Your task to perform on an android device: turn off notifications settings in the gmail app Image 0: 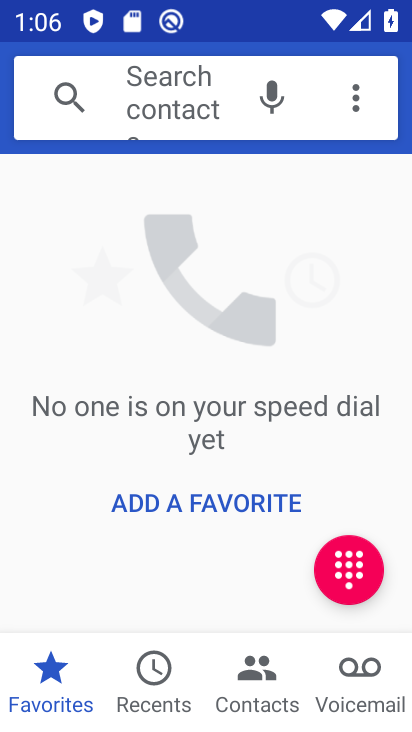
Step 0: press home button
Your task to perform on an android device: turn off notifications settings in the gmail app Image 1: 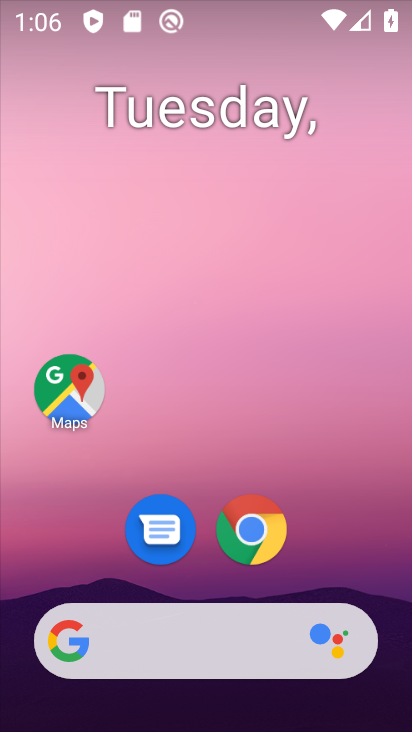
Step 1: drag from (372, 548) to (339, 112)
Your task to perform on an android device: turn off notifications settings in the gmail app Image 2: 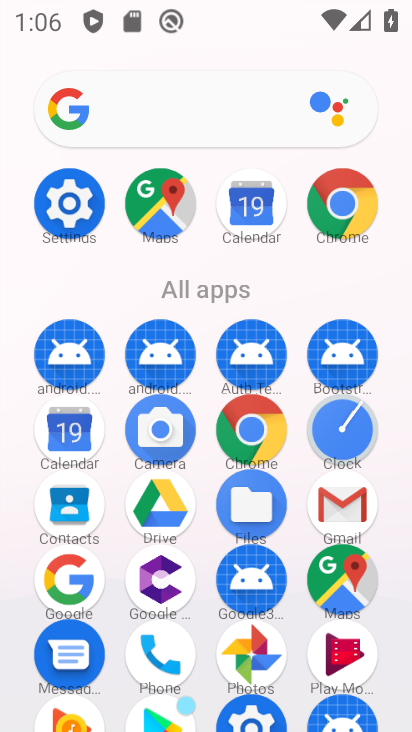
Step 2: click (353, 505)
Your task to perform on an android device: turn off notifications settings in the gmail app Image 3: 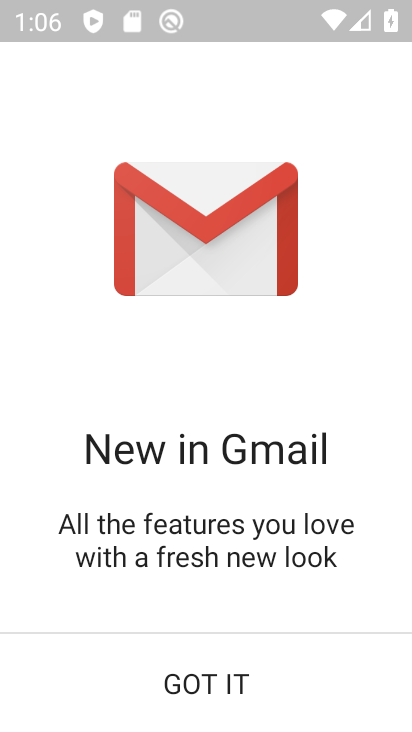
Step 3: click (232, 674)
Your task to perform on an android device: turn off notifications settings in the gmail app Image 4: 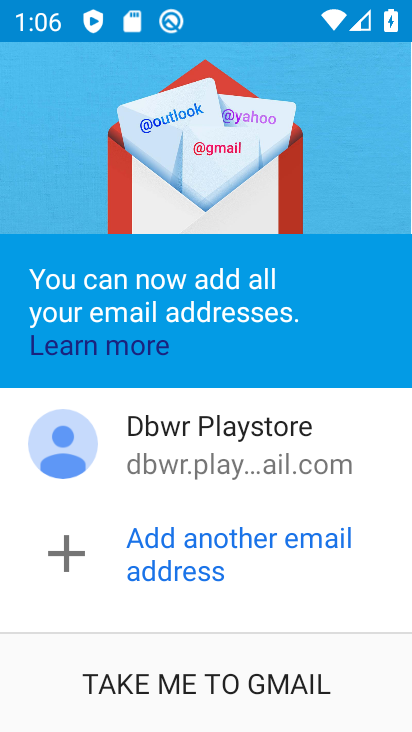
Step 4: click (232, 674)
Your task to perform on an android device: turn off notifications settings in the gmail app Image 5: 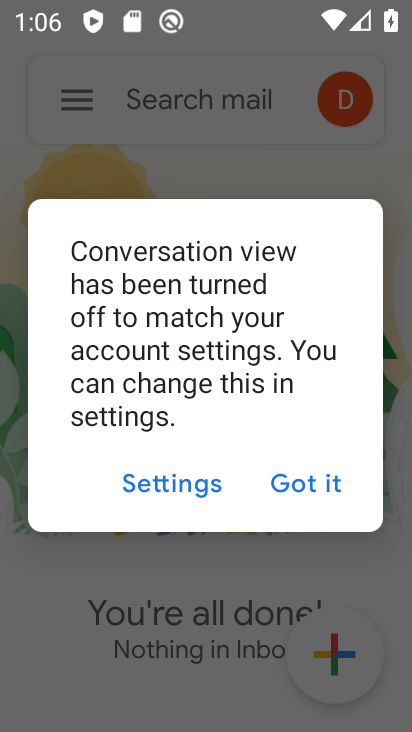
Step 5: click (312, 494)
Your task to perform on an android device: turn off notifications settings in the gmail app Image 6: 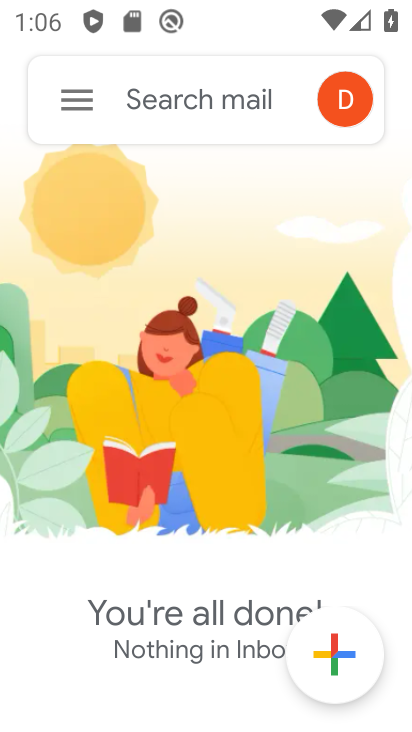
Step 6: click (73, 95)
Your task to perform on an android device: turn off notifications settings in the gmail app Image 7: 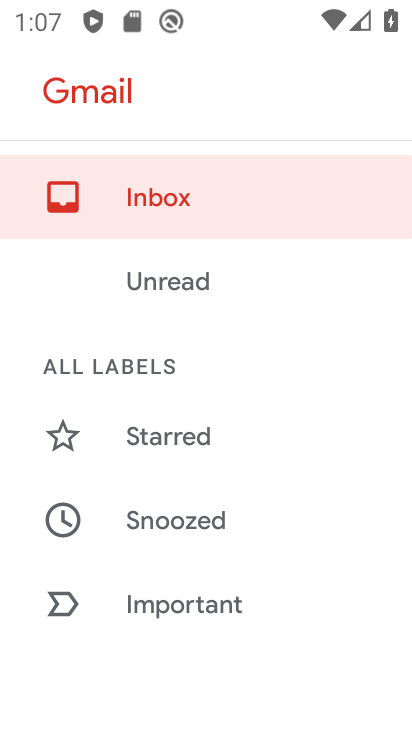
Step 7: drag from (316, 570) to (260, 286)
Your task to perform on an android device: turn off notifications settings in the gmail app Image 8: 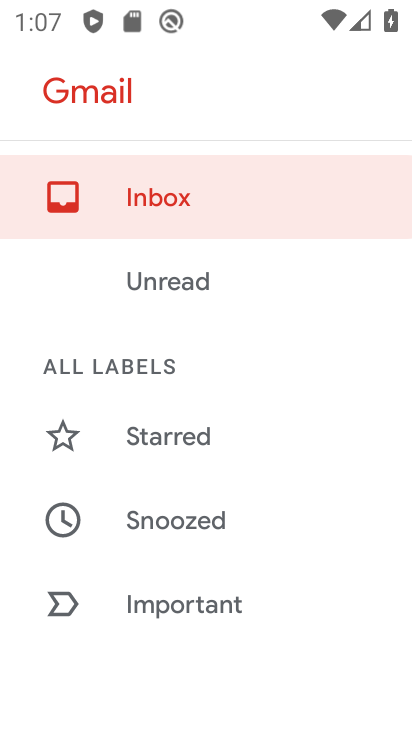
Step 8: drag from (381, 603) to (365, 255)
Your task to perform on an android device: turn off notifications settings in the gmail app Image 9: 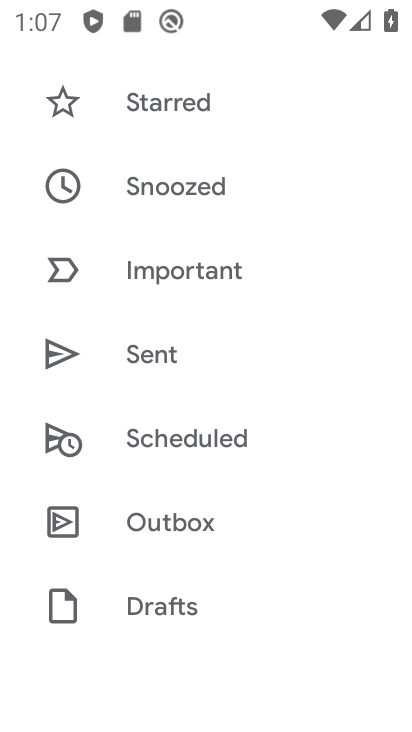
Step 9: drag from (365, 570) to (346, 145)
Your task to perform on an android device: turn off notifications settings in the gmail app Image 10: 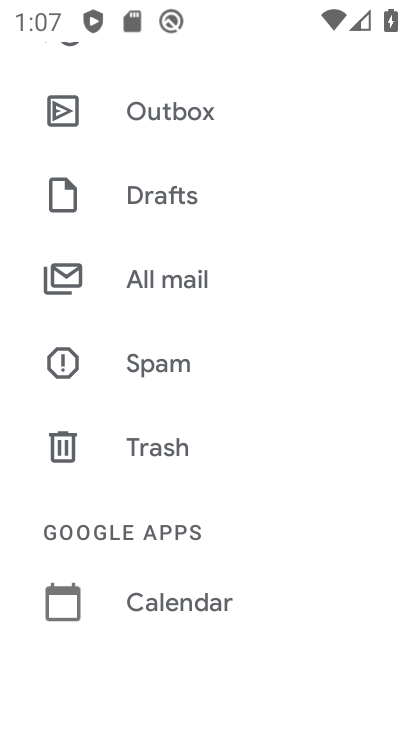
Step 10: drag from (358, 542) to (349, 163)
Your task to perform on an android device: turn off notifications settings in the gmail app Image 11: 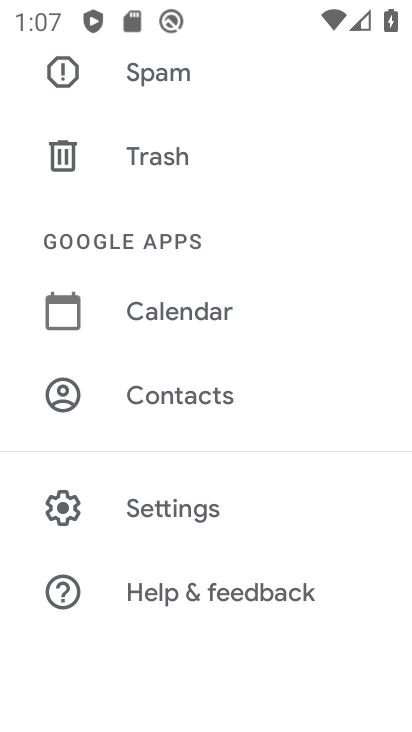
Step 11: click (292, 506)
Your task to perform on an android device: turn off notifications settings in the gmail app Image 12: 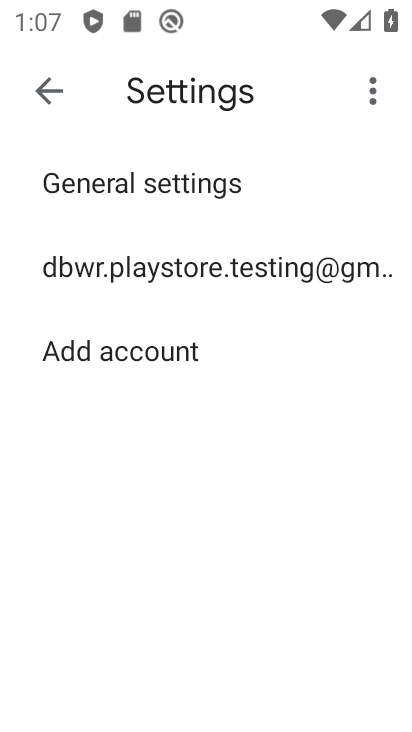
Step 12: click (305, 271)
Your task to perform on an android device: turn off notifications settings in the gmail app Image 13: 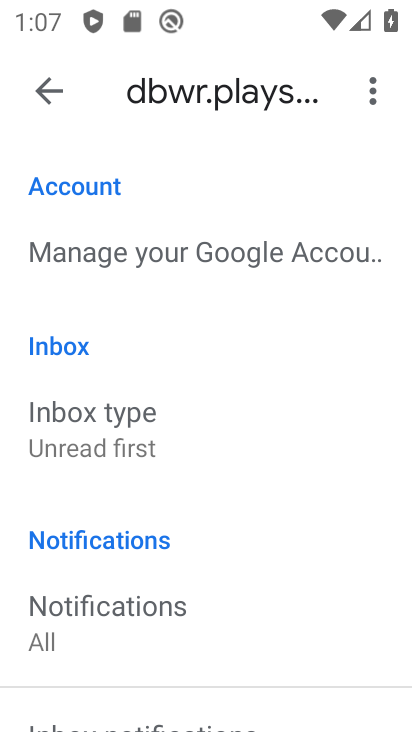
Step 13: drag from (325, 574) to (286, 292)
Your task to perform on an android device: turn off notifications settings in the gmail app Image 14: 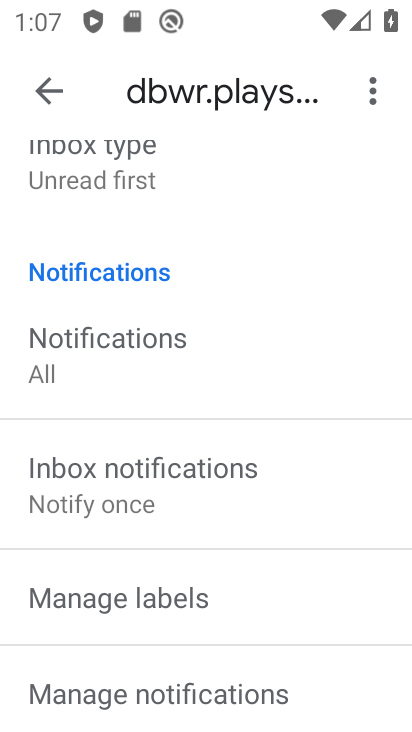
Step 14: drag from (333, 565) to (305, 230)
Your task to perform on an android device: turn off notifications settings in the gmail app Image 15: 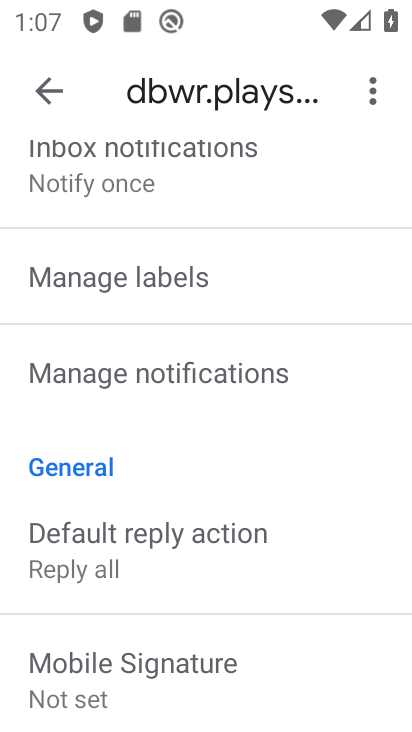
Step 15: click (320, 364)
Your task to perform on an android device: turn off notifications settings in the gmail app Image 16: 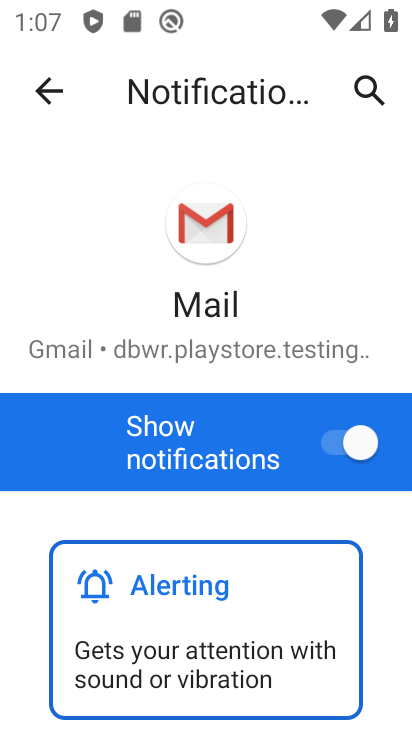
Step 16: drag from (383, 612) to (354, 137)
Your task to perform on an android device: turn off notifications settings in the gmail app Image 17: 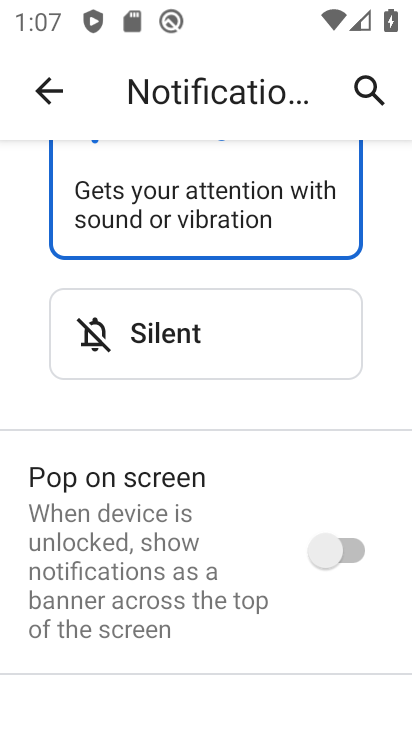
Step 17: click (409, 455)
Your task to perform on an android device: turn off notifications settings in the gmail app Image 18: 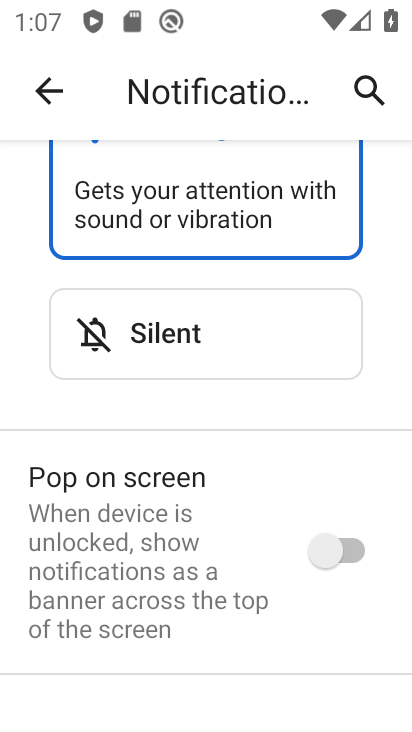
Step 18: drag from (376, 264) to (341, 600)
Your task to perform on an android device: turn off notifications settings in the gmail app Image 19: 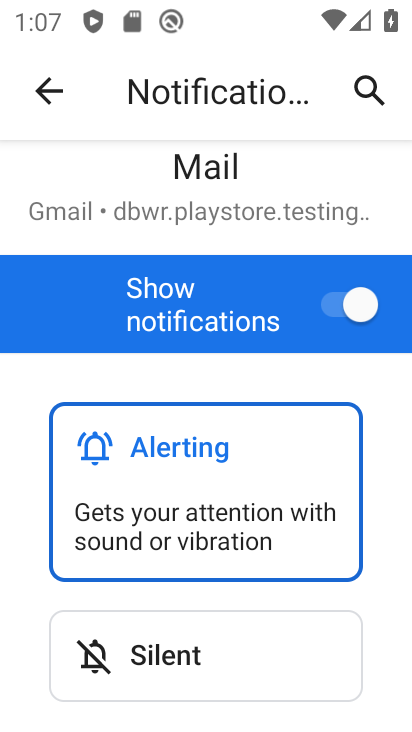
Step 19: click (333, 310)
Your task to perform on an android device: turn off notifications settings in the gmail app Image 20: 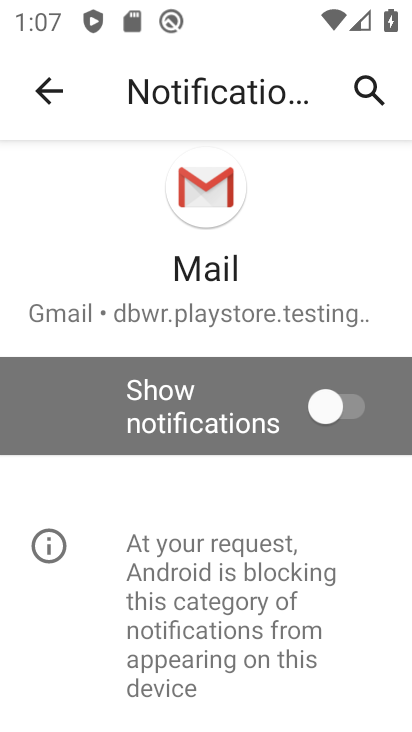
Step 20: task complete